Your task to perform on an android device: Open the calendar app, open the side menu, and click the "Day" option Image 0: 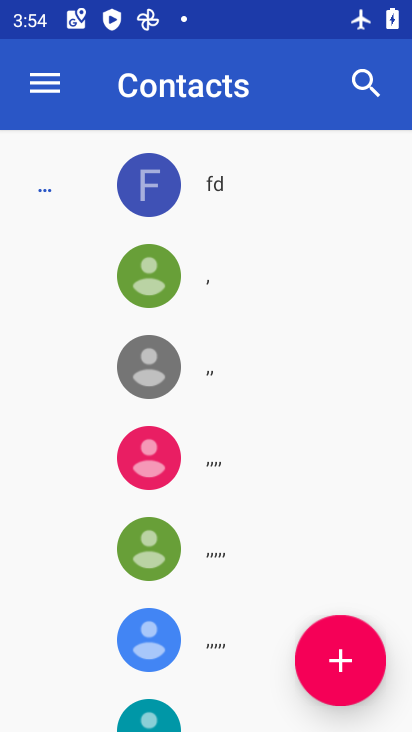
Step 0: press home button
Your task to perform on an android device: Open the calendar app, open the side menu, and click the "Day" option Image 1: 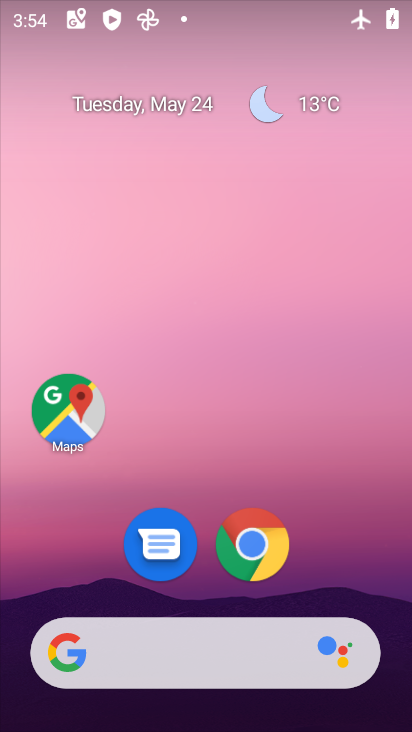
Step 1: drag from (389, 591) to (377, 122)
Your task to perform on an android device: Open the calendar app, open the side menu, and click the "Day" option Image 2: 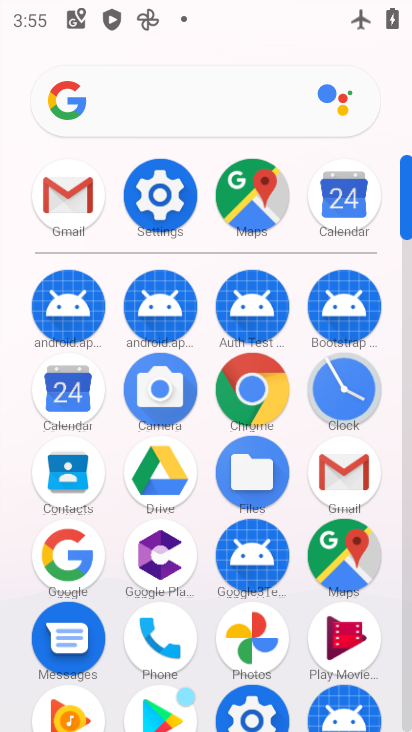
Step 2: drag from (398, 561) to (356, 232)
Your task to perform on an android device: Open the calendar app, open the side menu, and click the "Day" option Image 3: 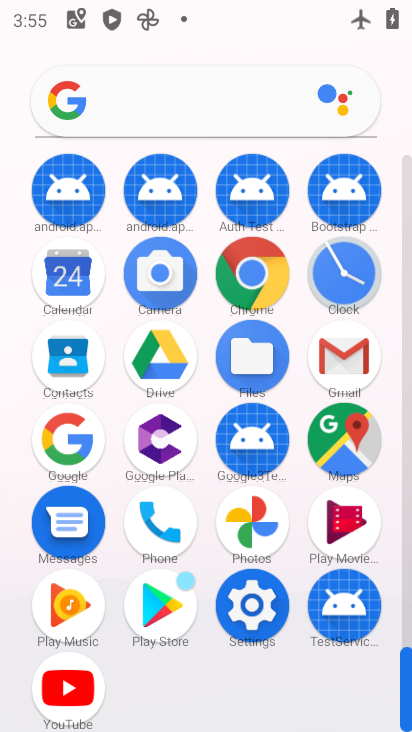
Step 3: click (245, 530)
Your task to perform on an android device: Open the calendar app, open the side menu, and click the "Day" option Image 4: 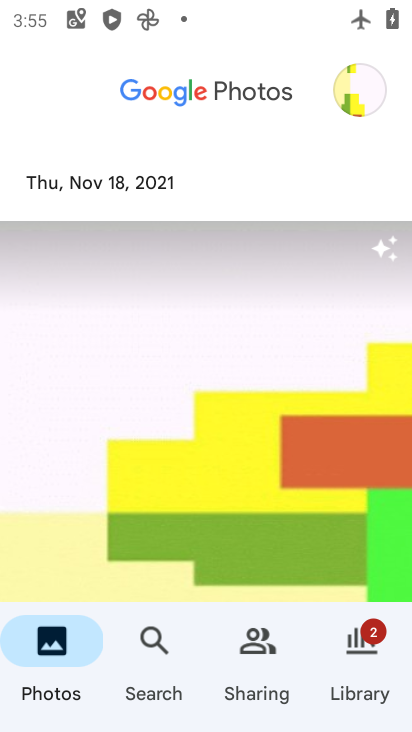
Step 4: press back button
Your task to perform on an android device: Open the calendar app, open the side menu, and click the "Day" option Image 5: 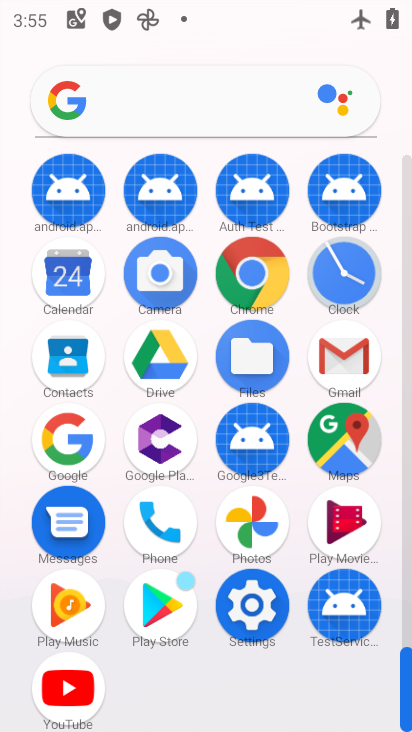
Step 5: click (52, 309)
Your task to perform on an android device: Open the calendar app, open the side menu, and click the "Day" option Image 6: 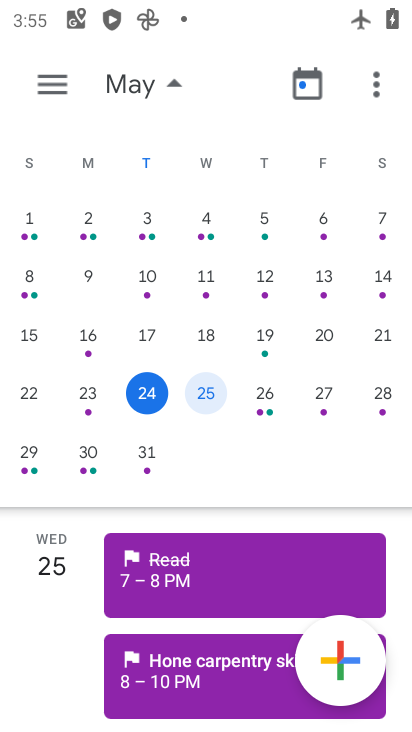
Step 6: click (49, 95)
Your task to perform on an android device: Open the calendar app, open the side menu, and click the "Day" option Image 7: 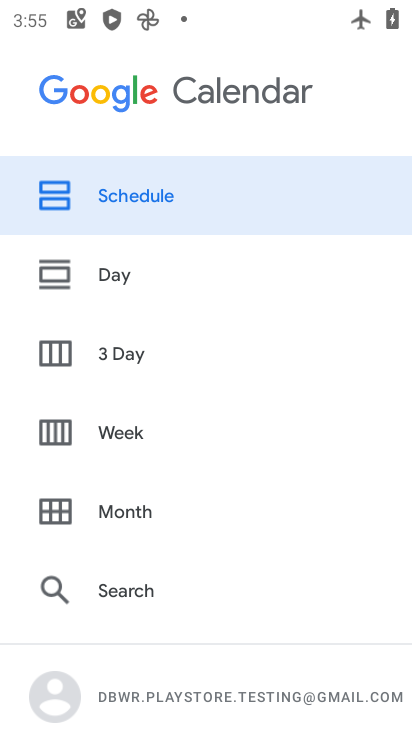
Step 7: click (103, 287)
Your task to perform on an android device: Open the calendar app, open the side menu, and click the "Day" option Image 8: 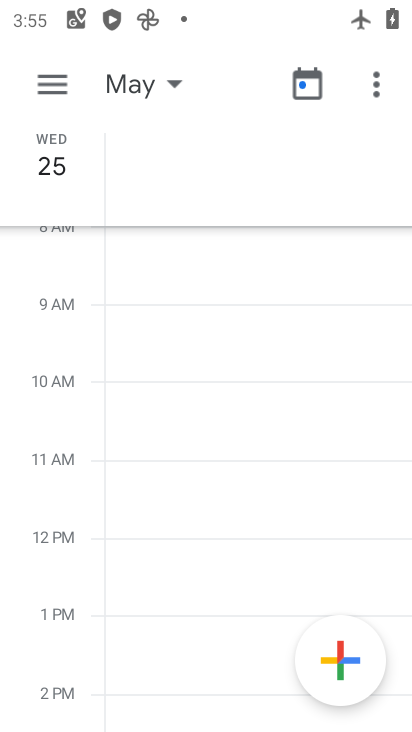
Step 8: task complete